Your task to perform on an android device: change the clock display to digital Image 0: 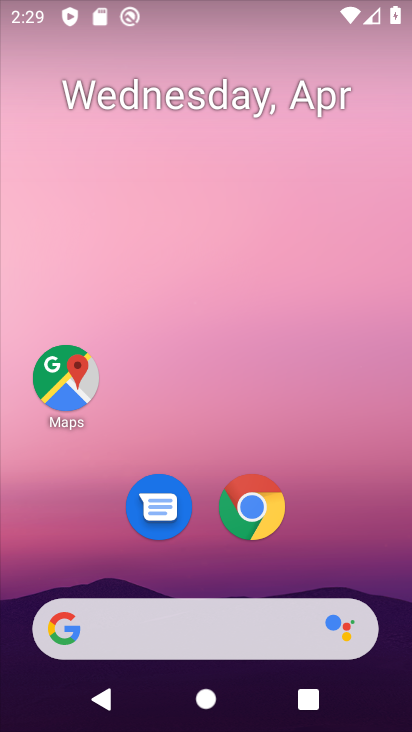
Step 0: drag from (220, 238) to (95, 62)
Your task to perform on an android device: change the clock display to digital Image 1: 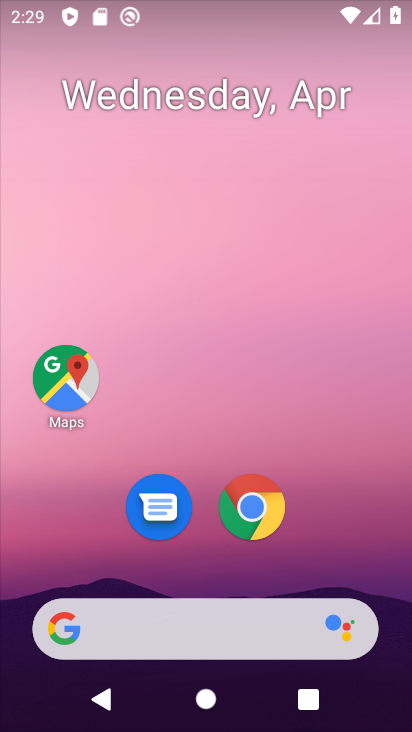
Step 1: drag from (349, 475) to (296, 139)
Your task to perform on an android device: change the clock display to digital Image 2: 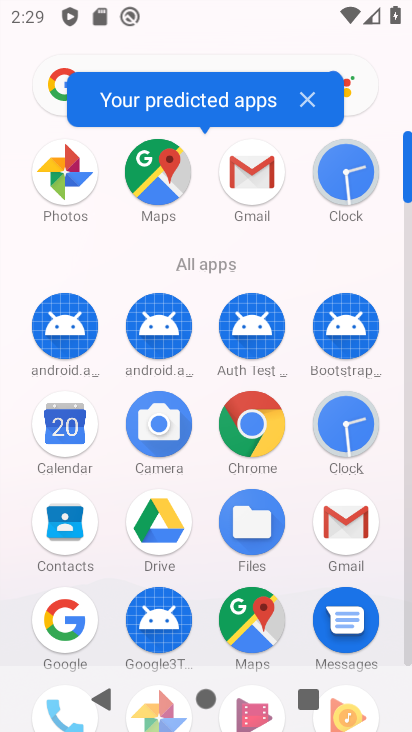
Step 2: click (367, 434)
Your task to perform on an android device: change the clock display to digital Image 3: 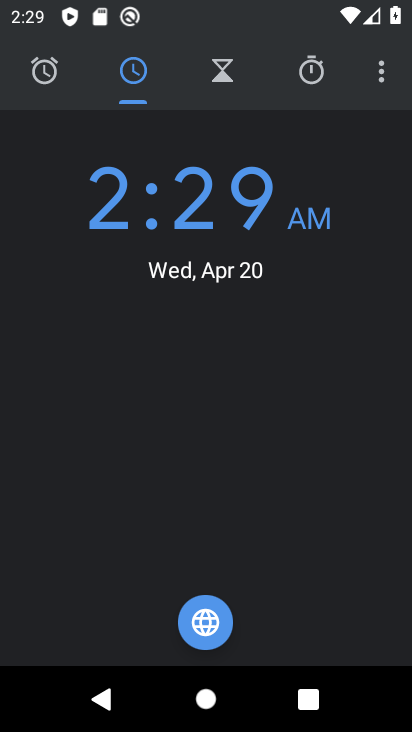
Step 3: click (374, 67)
Your task to perform on an android device: change the clock display to digital Image 4: 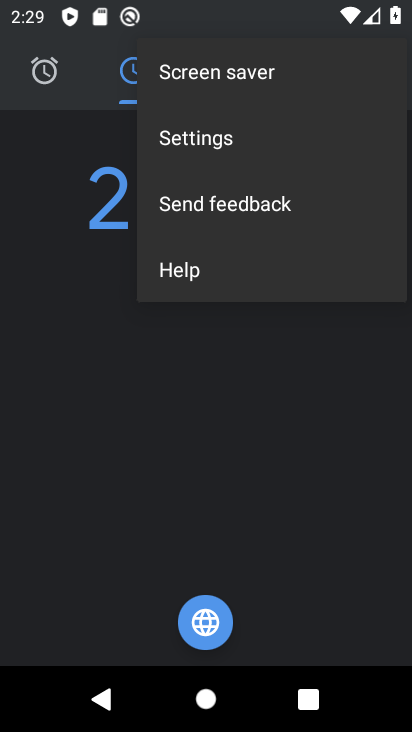
Step 4: click (209, 139)
Your task to perform on an android device: change the clock display to digital Image 5: 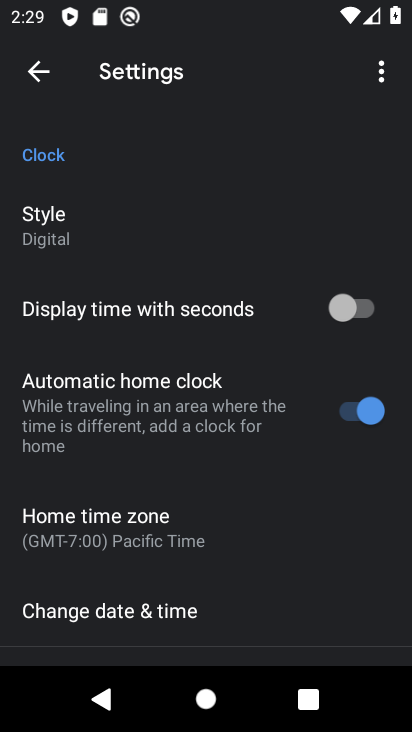
Step 5: click (48, 236)
Your task to perform on an android device: change the clock display to digital Image 6: 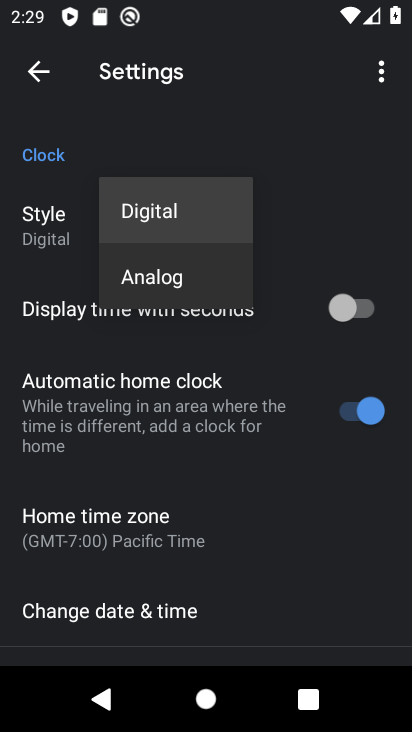
Step 6: task complete